Your task to perform on an android device: Go to internet settings Image 0: 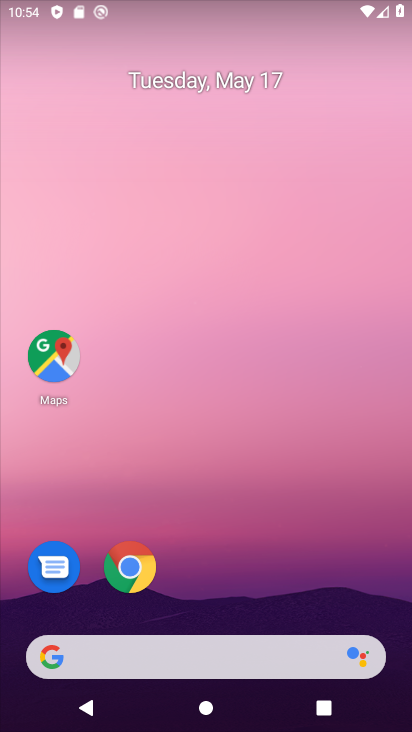
Step 0: drag from (282, 541) to (285, 263)
Your task to perform on an android device: Go to internet settings Image 1: 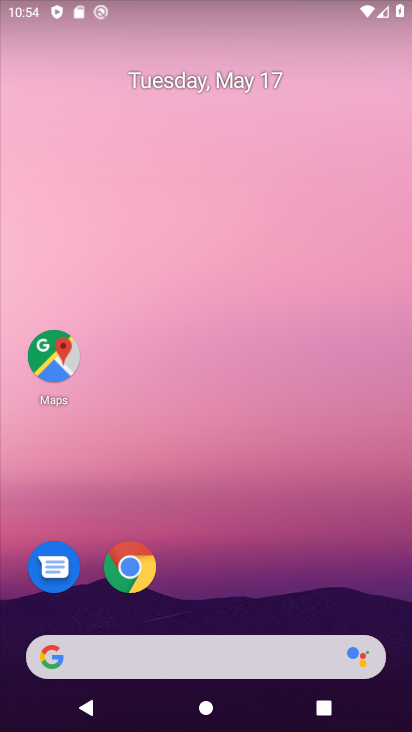
Step 1: drag from (282, 592) to (287, 236)
Your task to perform on an android device: Go to internet settings Image 2: 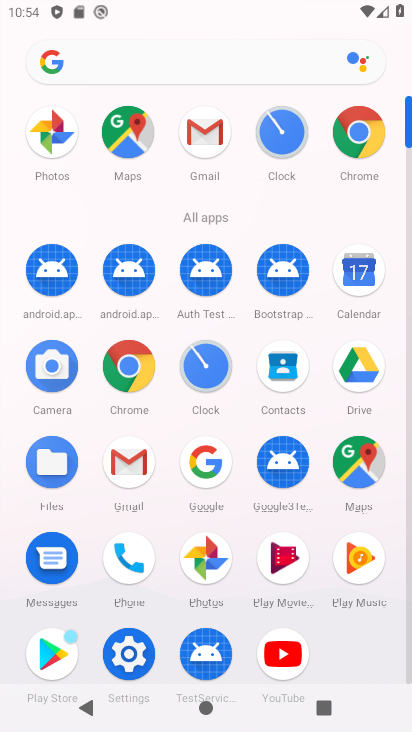
Step 2: click (123, 658)
Your task to perform on an android device: Go to internet settings Image 3: 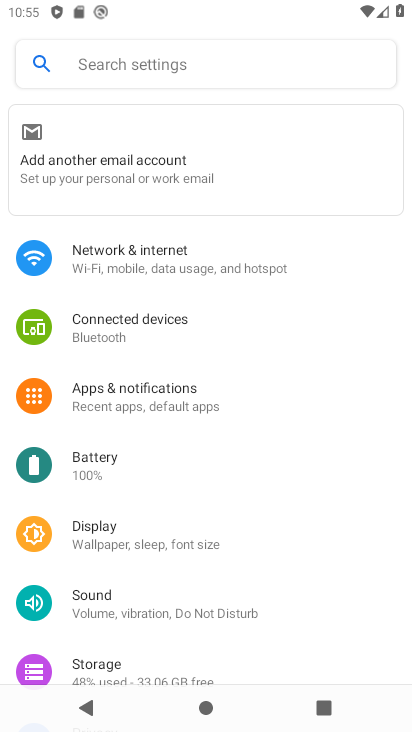
Step 3: click (171, 257)
Your task to perform on an android device: Go to internet settings Image 4: 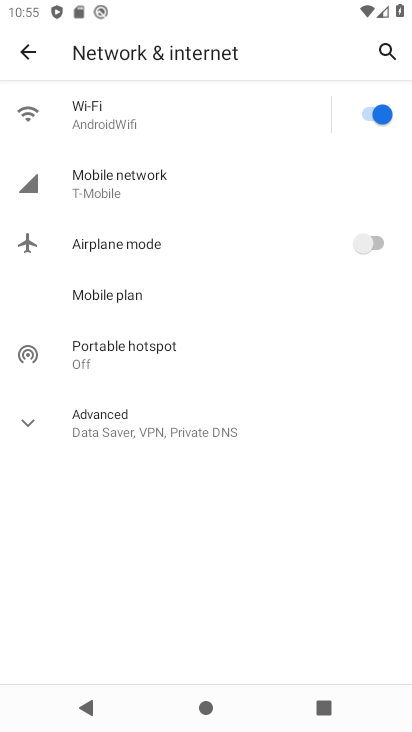
Step 4: task complete